Your task to perform on an android device: Do I have any events tomorrow? Image 0: 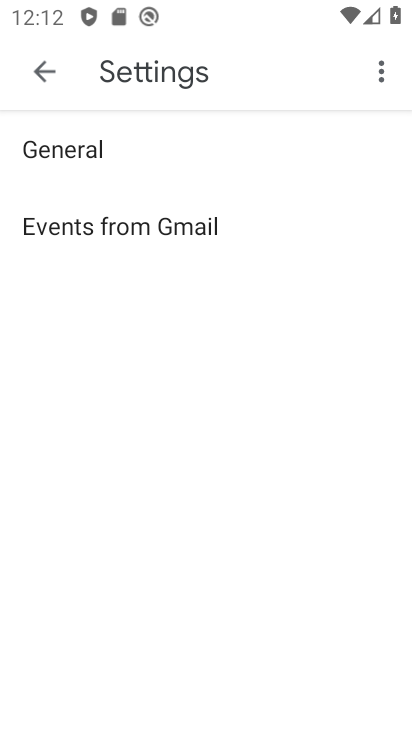
Step 0: press home button
Your task to perform on an android device: Do I have any events tomorrow? Image 1: 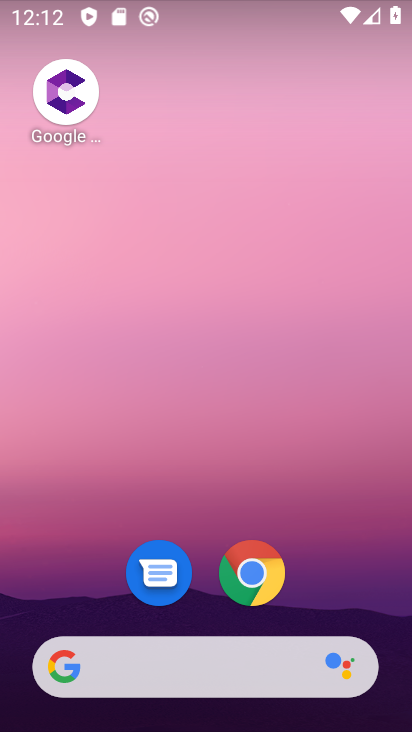
Step 1: drag from (205, 596) to (170, 393)
Your task to perform on an android device: Do I have any events tomorrow? Image 2: 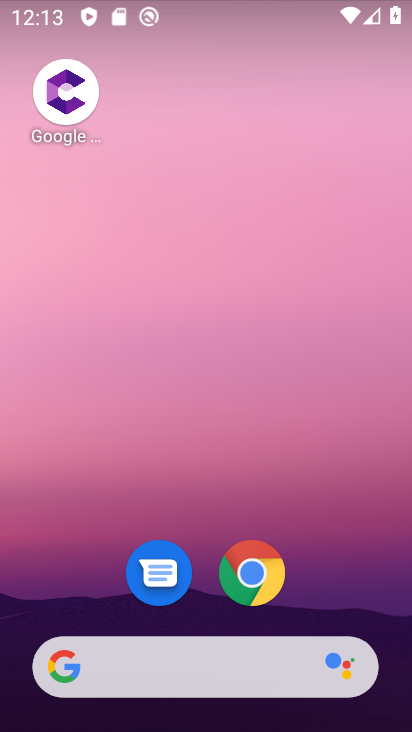
Step 2: drag from (200, 603) to (213, 80)
Your task to perform on an android device: Do I have any events tomorrow? Image 3: 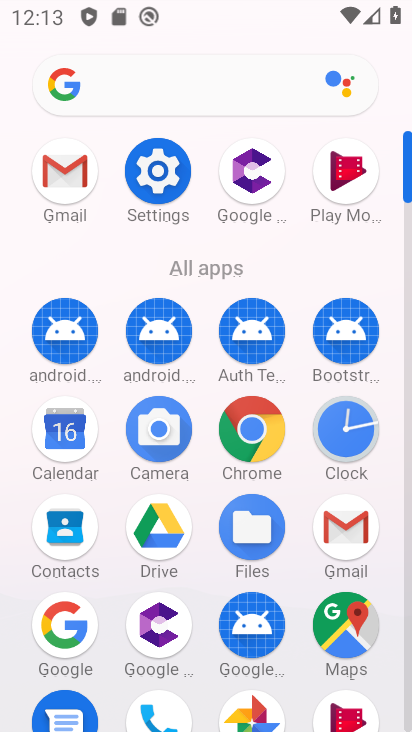
Step 3: click (66, 451)
Your task to perform on an android device: Do I have any events tomorrow? Image 4: 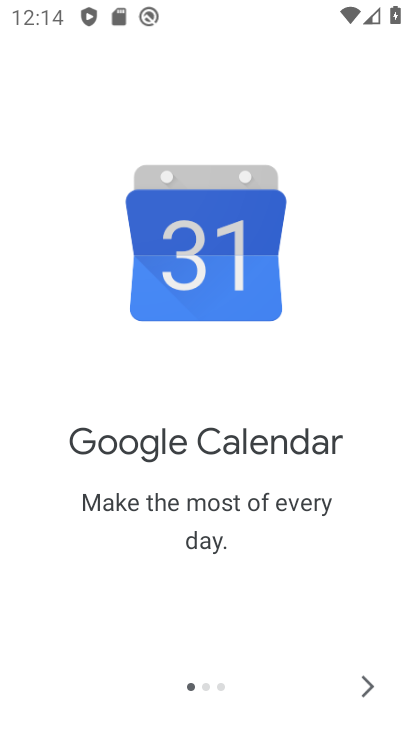
Step 4: click (370, 691)
Your task to perform on an android device: Do I have any events tomorrow? Image 5: 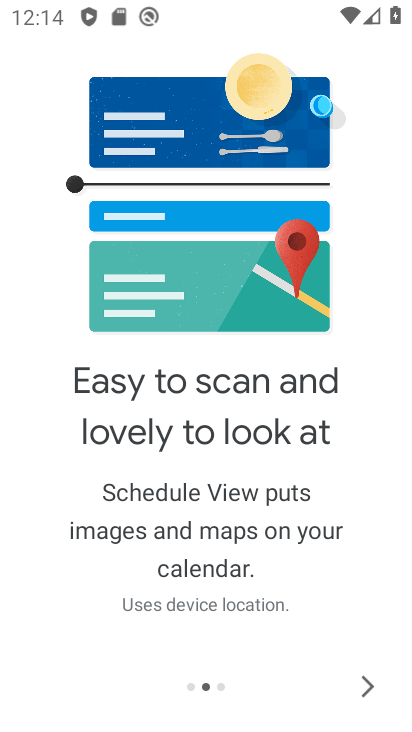
Step 5: click (370, 691)
Your task to perform on an android device: Do I have any events tomorrow? Image 6: 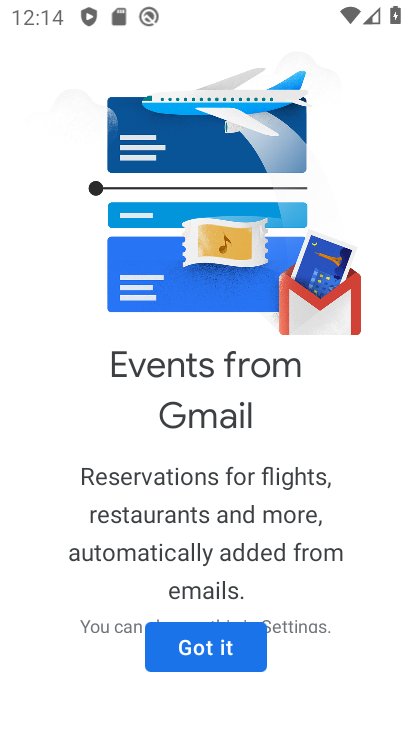
Step 6: click (188, 661)
Your task to perform on an android device: Do I have any events tomorrow? Image 7: 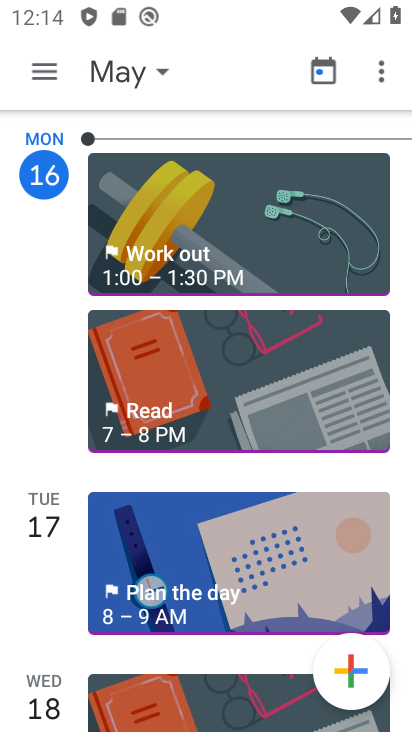
Step 7: click (153, 99)
Your task to perform on an android device: Do I have any events tomorrow? Image 8: 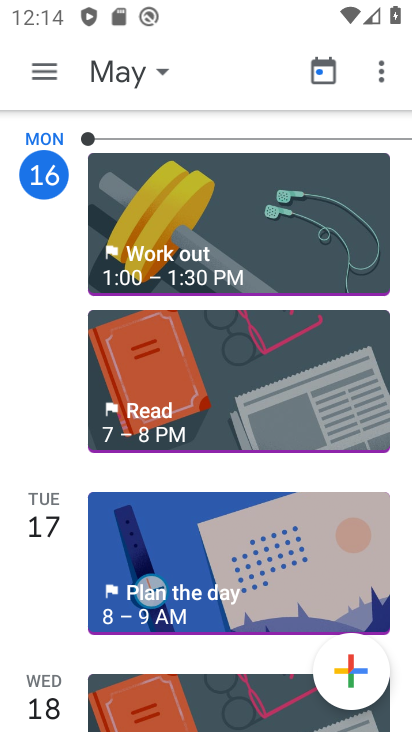
Step 8: click (138, 82)
Your task to perform on an android device: Do I have any events tomorrow? Image 9: 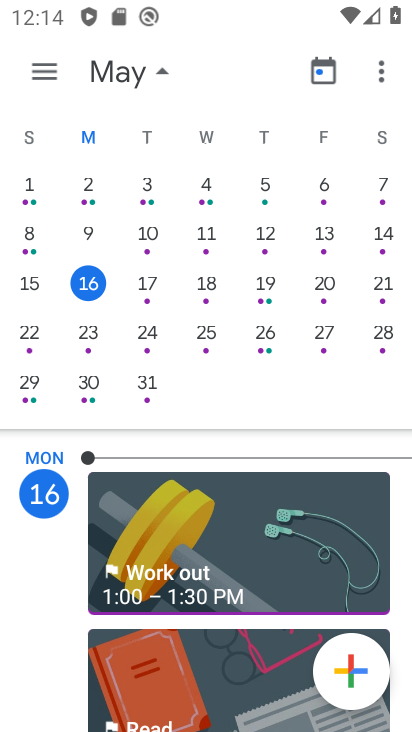
Step 9: click (138, 82)
Your task to perform on an android device: Do I have any events tomorrow? Image 10: 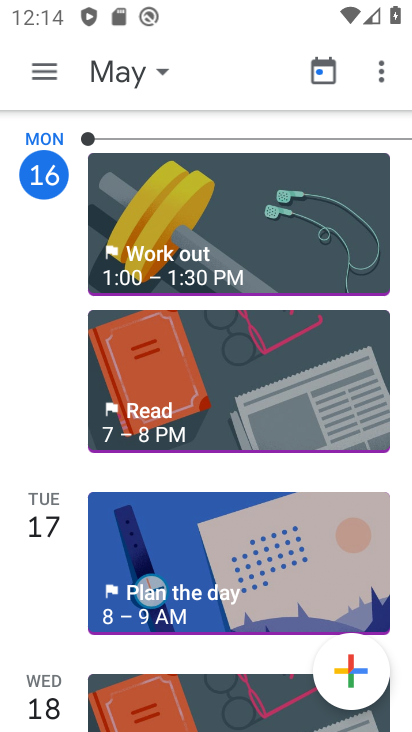
Step 10: click (138, 82)
Your task to perform on an android device: Do I have any events tomorrow? Image 11: 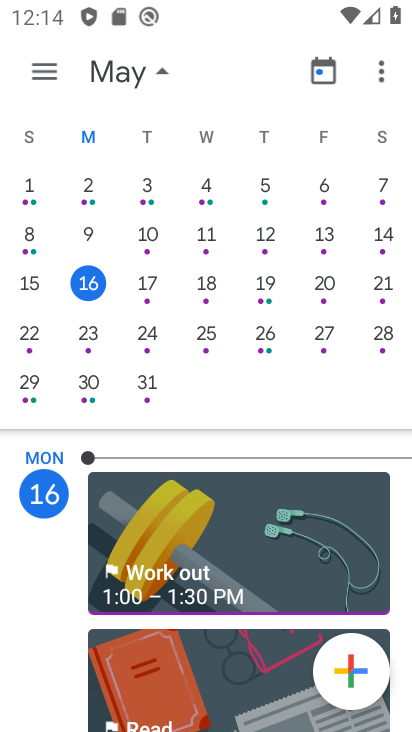
Step 11: click (138, 82)
Your task to perform on an android device: Do I have any events tomorrow? Image 12: 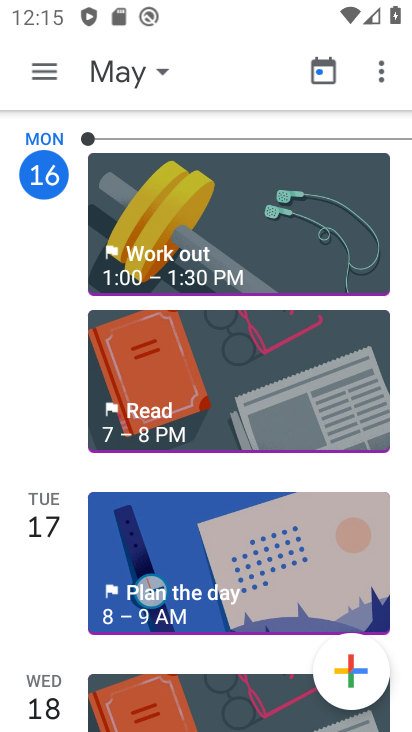
Step 12: click (138, 82)
Your task to perform on an android device: Do I have any events tomorrow? Image 13: 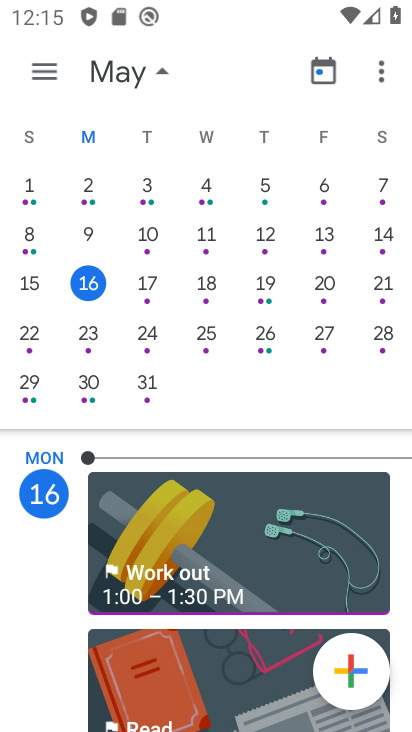
Step 13: click (138, 82)
Your task to perform on an android device: Do I have any events tomorrow? Image 14: 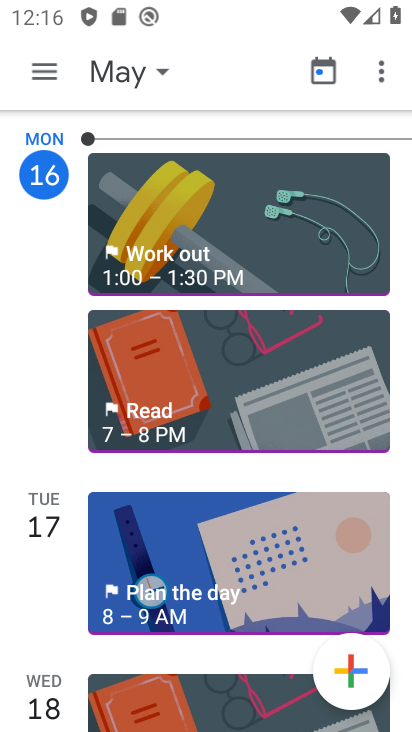
Step 14: click (153, 281)
Your task to perform on an android device: Do I have any events tomorrow? Image 15: 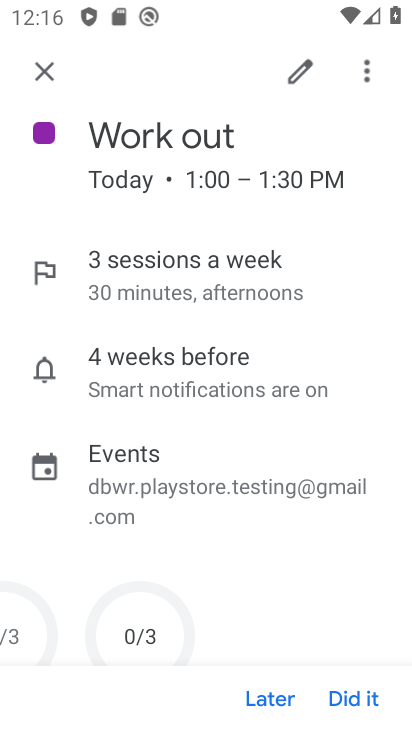
Step 15: drag from (117, 404) to (211, 8)
Your task to perform on an android device: Do I have any events tomorrow? Image 16: 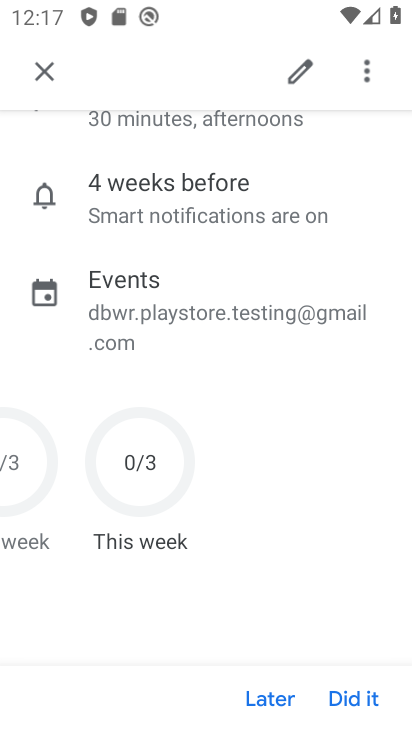
Step 16: click (48, 63)
Your task to perform on an android device: Do I have any events tomorrow? Image 17: 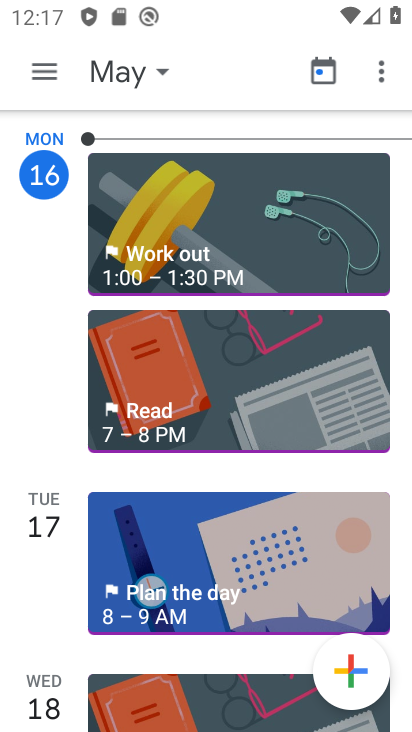
Step 17: task complete